Your task to perform on an android device: find which apps use the phone's location Image 0: 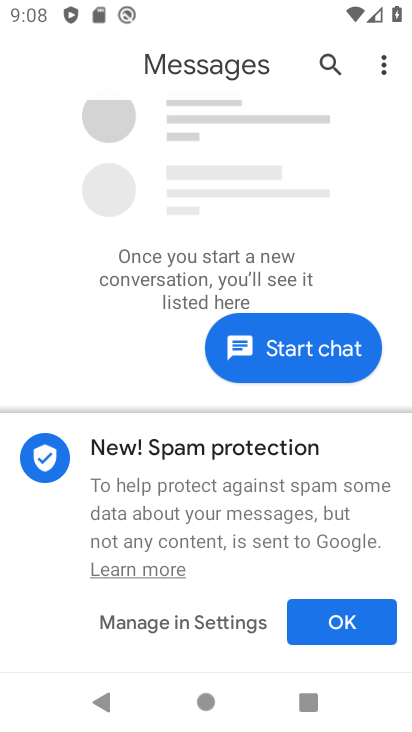
Step 0: press home button
Your task to perform on an android device: find which apps use the phone's location Image 1: 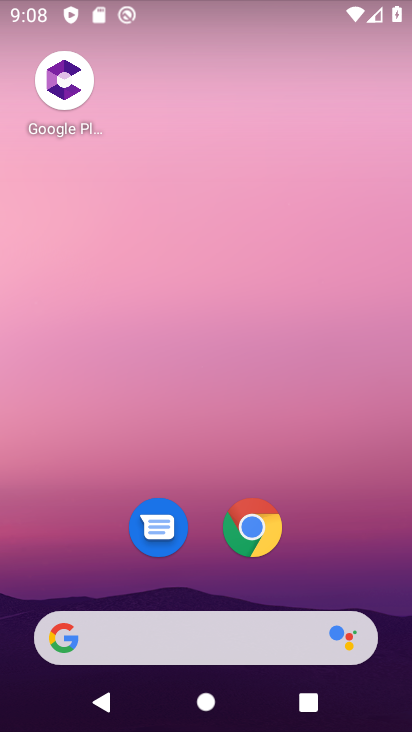
Step 1: drag from (396, 613) to (405, 282)
Your task to perform on an android device: find which apps use the phone's location Image 2: 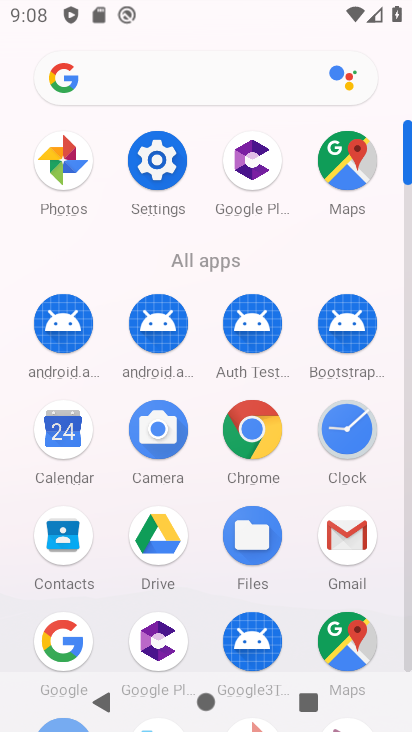
Step 2: click (355, 642)
Your task to perform on an android device: find which apps use the phone's location Image 3: 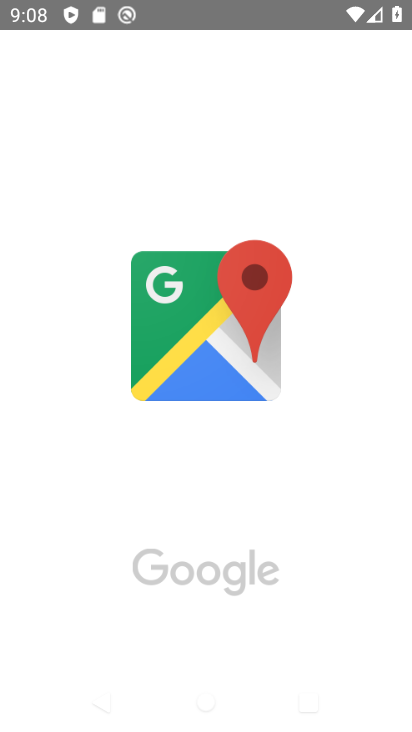
Step 3: press home button
Your task to perform on an android device: find which apps use the phone's location Image 4: 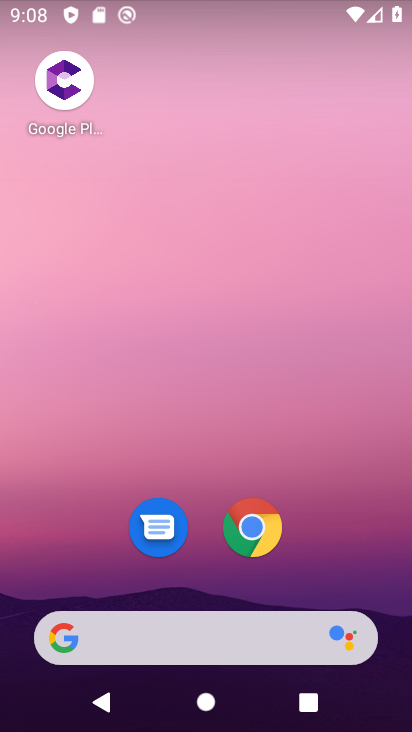
Step 4: drag from (395, 700) to (310, 247)
Your task to perform on an android device: find which apps use the phone's location Image 5: 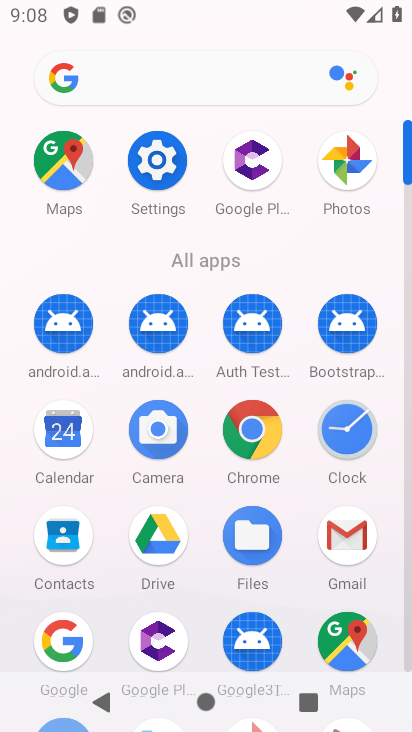
Step 5: drag from (201, 634) to (150, 318)
Your task to perform on an android device: find which apps use the phone's location Image 6: 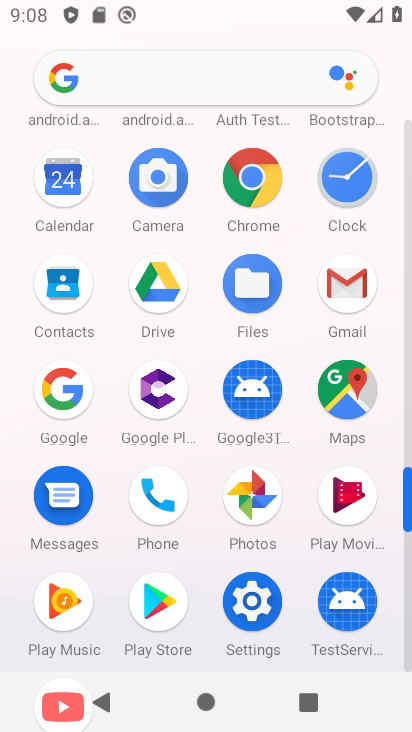
Step 6: drag from (191, 579) to (172, 323)
Your task to perform on an android device: find which apps use the phone's location Image 7: 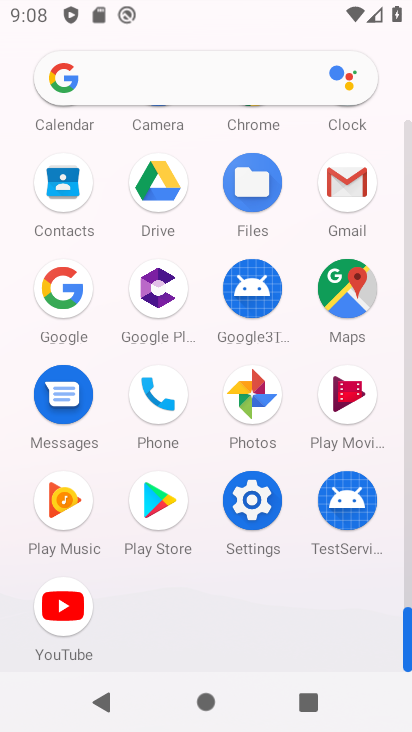
Step 7: click (248, 515)
Your task to perform on an android device: find which apps use the phone's location Image 8: 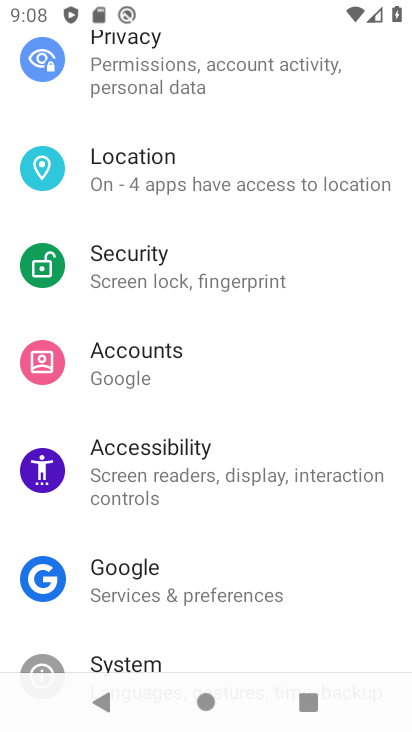
Step 8: click (135, 172)
Your task to perform on an android device: find which apps use the phone's location Image 9: 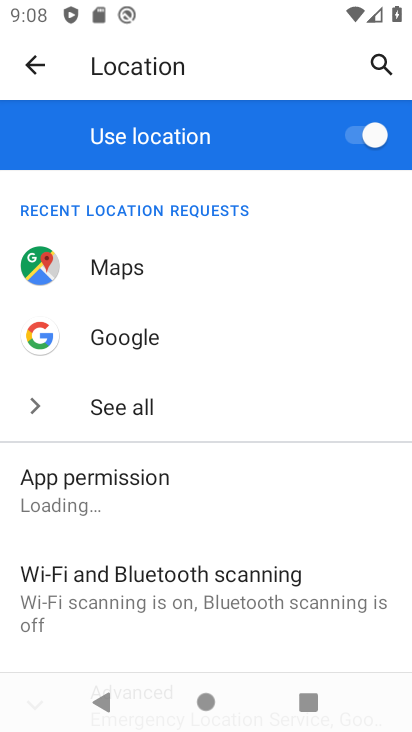
Step 9: drag from (251, 552) to (217, 243)
Your task to perform on an android device: find which apps use the phone's location Image 10: 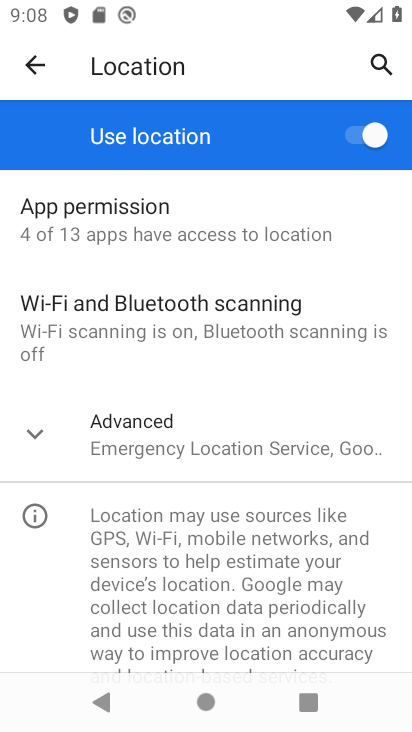
Step 10: click (37, 432)
Your task to perform on an android device: find which apps use the phone's location Image 11: 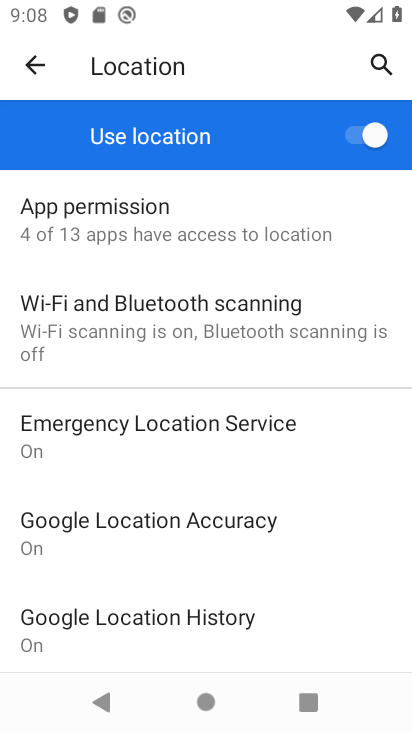
Step 11: drag from (299, 613) to (287, 308)
Your task to perform on an android device: find which apps use the phone's location Image 12: 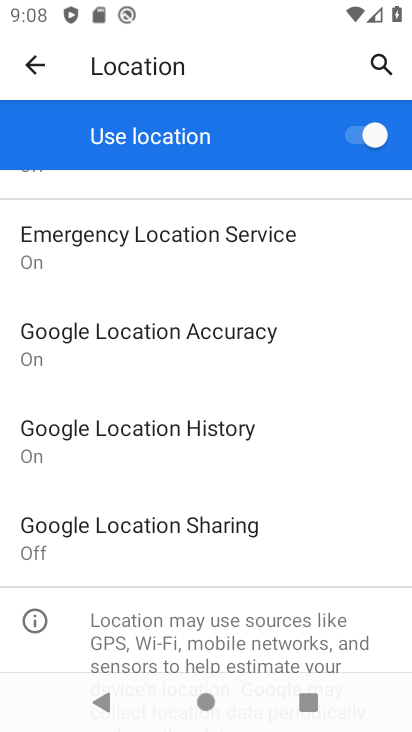
Step 12: drag from (328, 262) to (285, 685)
Your task to perform on an android device: find which apps use the phone's location Image 13: 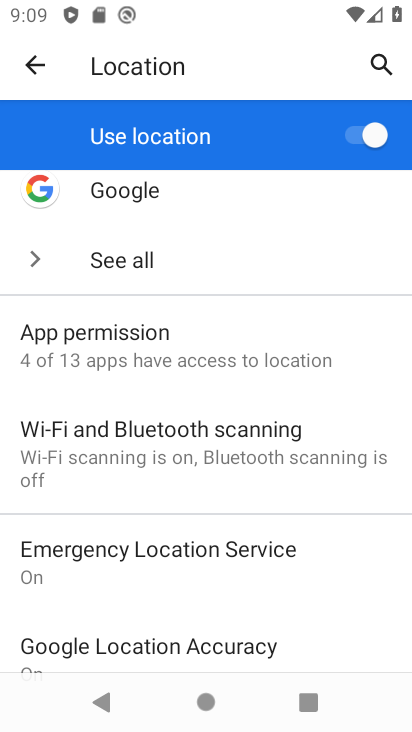
Step 13: drag from (248, 318) to (230, 561)
Your task to perform on an android device: find which apps use the phone's location Image 14: 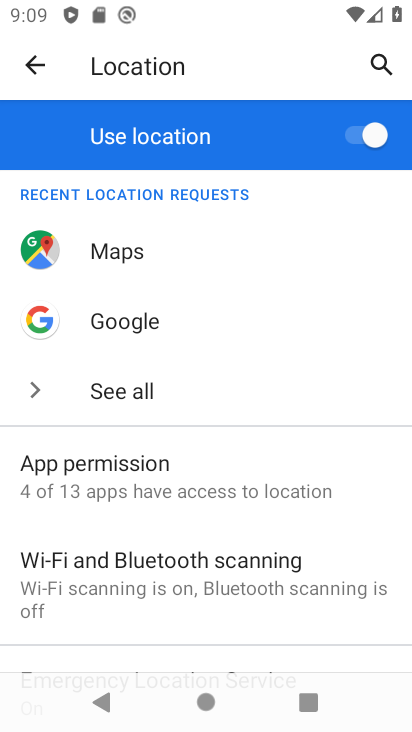
Step 14: drag from (238, 258) to (226, 598)
Your task to perform on an android device: find which apps use the phone's location Image 15: 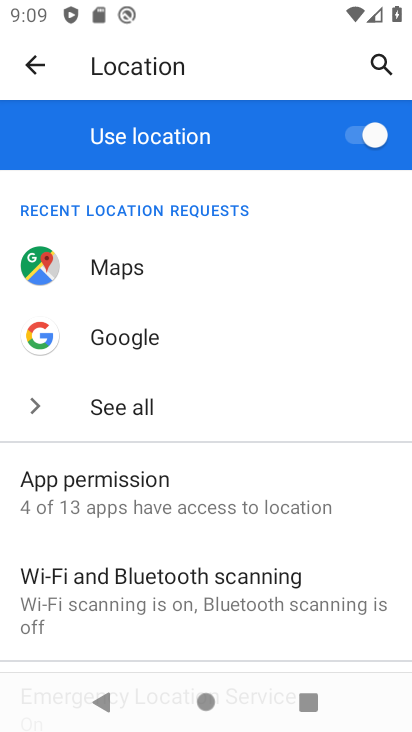
Step 15: click (68, 479)
Your task to perform on an android device: find which apps use the phone's location Image 16: 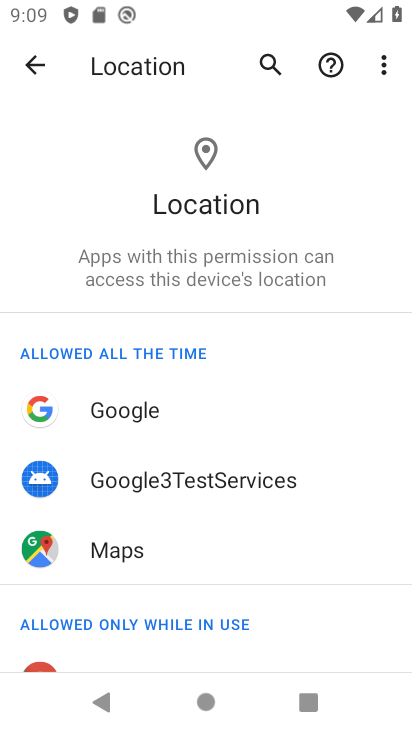
Step 16: task complete